Your task to perform on an android device: Toggle the flashlight Image 0: 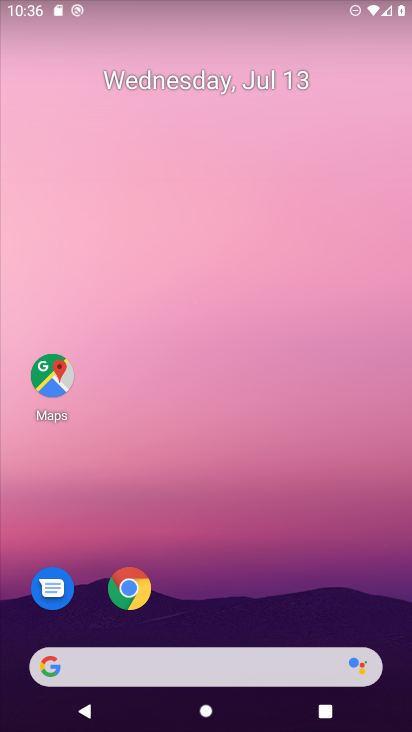
Step 0: drag from (214, 603) to (238, 110)
Your task to perform on an android device: Toggle the flashlight Image 1: 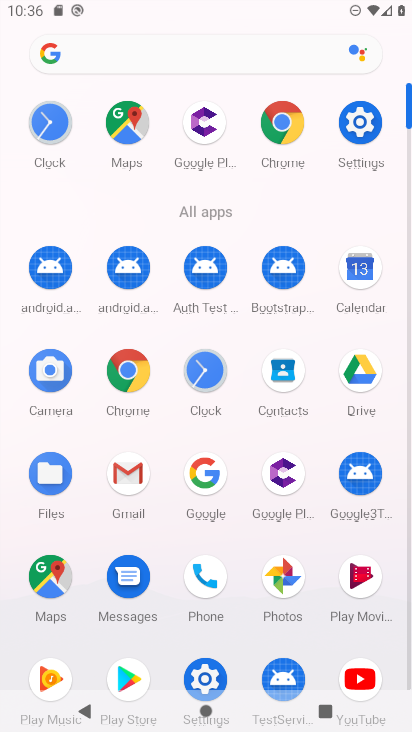
Step 1: click (199, 667)
Your task to perform on an android device: Toggle the flashlight Image 2: 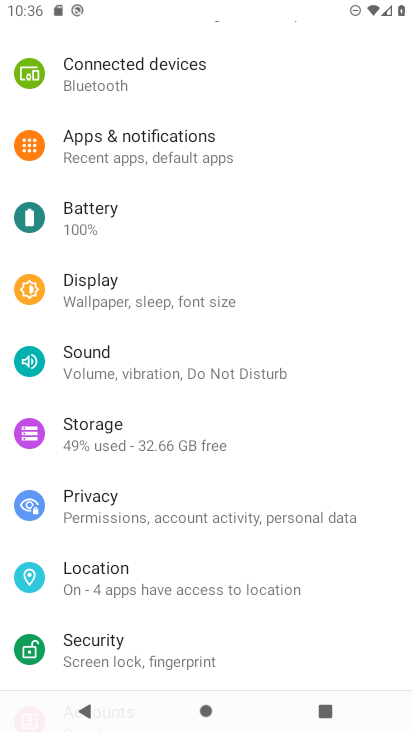
Step 2: drag from (196, 114) to (205, 531)
Your task to perform on an android device: Toggle the flashlight Image 3: 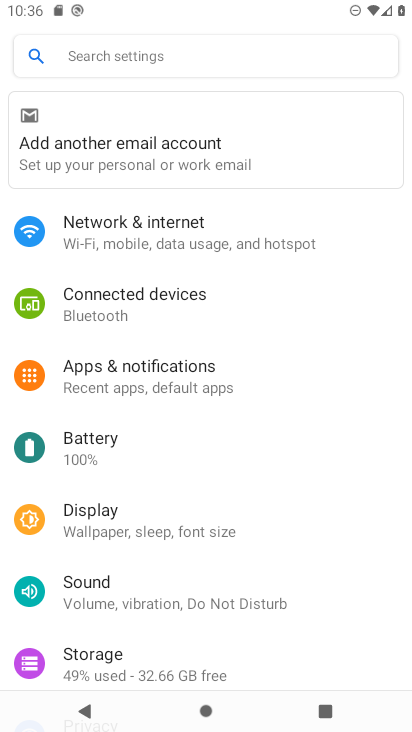
Step 3: click (188, 48)
Your task to perform on an android device: Toggle the flashlight Image 4: 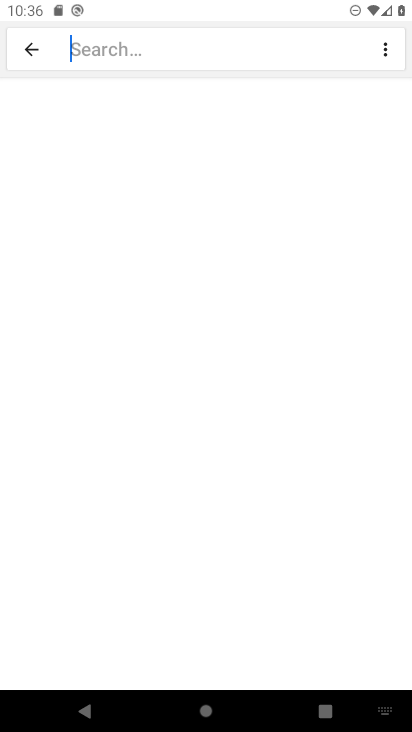
Step 4: type "flashlight"
Your task to perform on an android device: Toggle the flashlight Image 5: 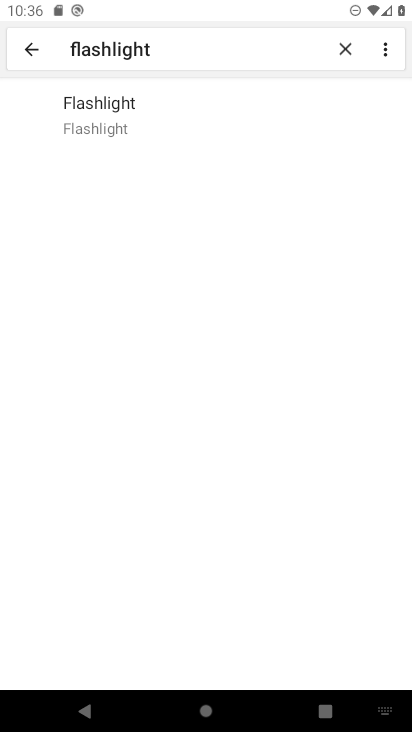
Step 5: click (88, 99)
Your task to perform on an android device: Toggle the flashlight Image 6: 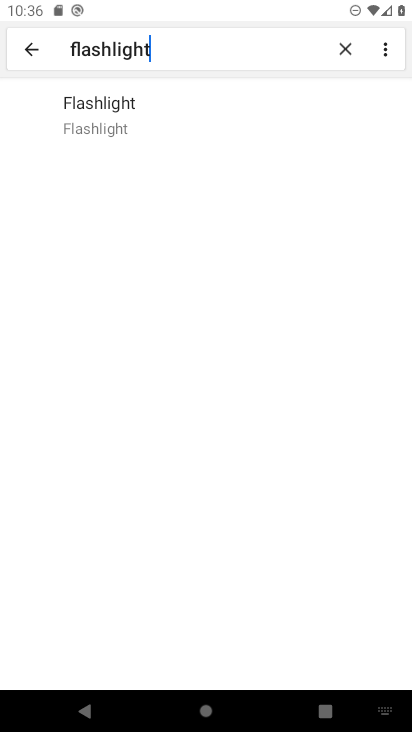
Step 6: click (86, 124)
Your task to perform on an android device: Toggle the flashlight Image 7: 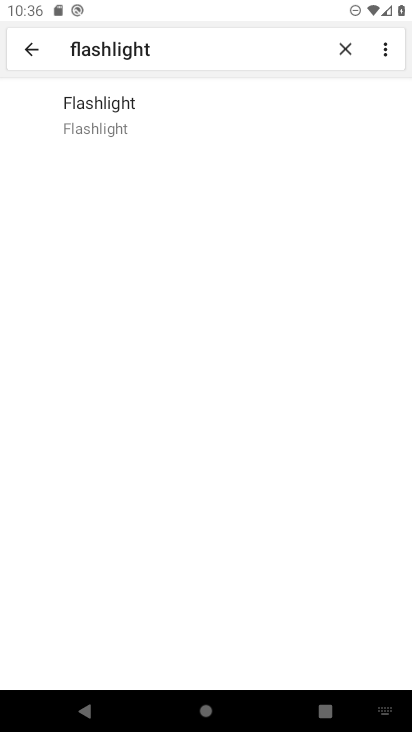
Step 7: task complete